Your task to perform on an android device: Open Reddit.com Image 0: 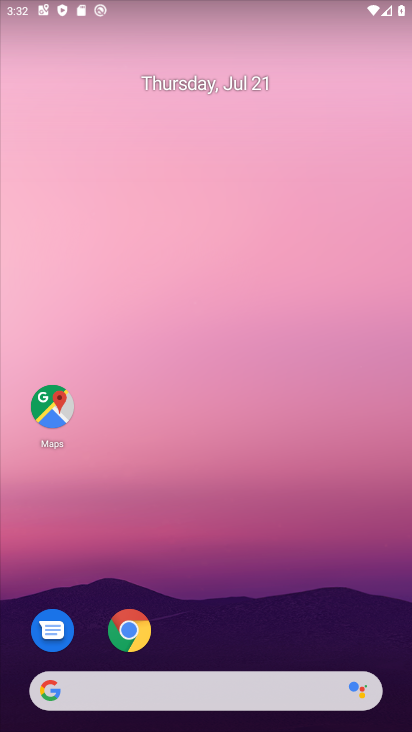
Step 0: drag from (227, 666) to (376, 0)
Your task to perform on an android device: Open Reddit.com Image 1: 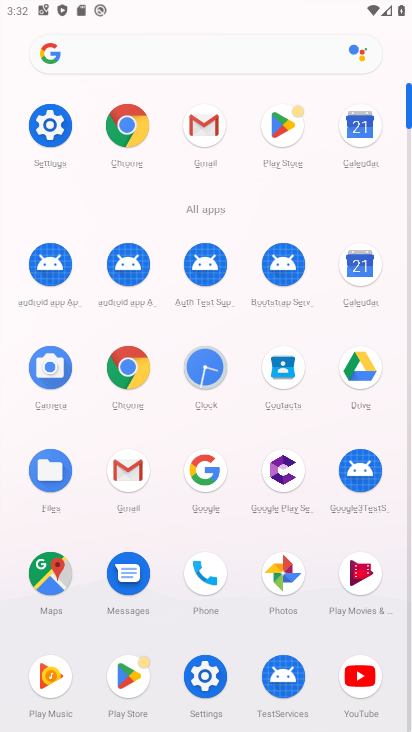
Step 1: click (117, 136)
Your task to perform on an android device: Open Reddit.com Image 2: 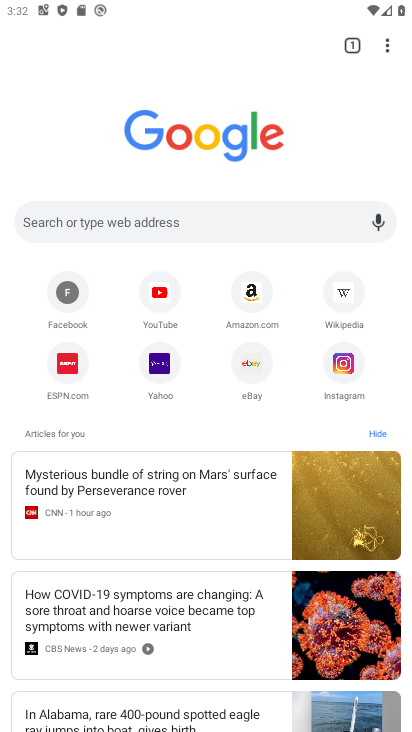
Step 2: click (234, 210)
Your task to perform on an android device: Open Reddit.com Image 3: 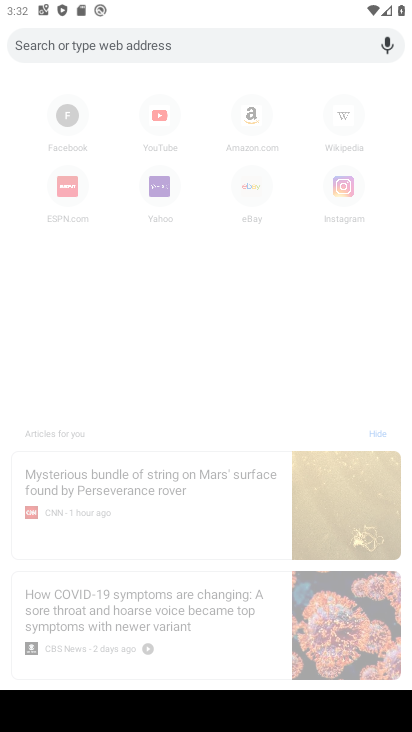
Step 3: type " Reddit.com"
Your task to perform on an android device: Open Reddit.com Image 4: 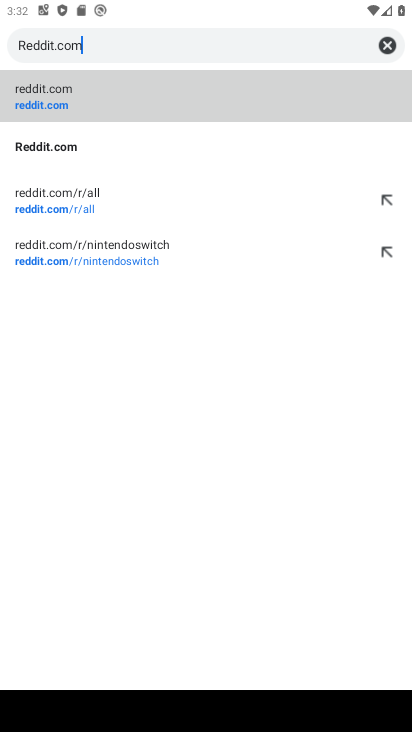
Step 4: type ""
Your task to perform on an android device: Open Reddit.com Image 5: 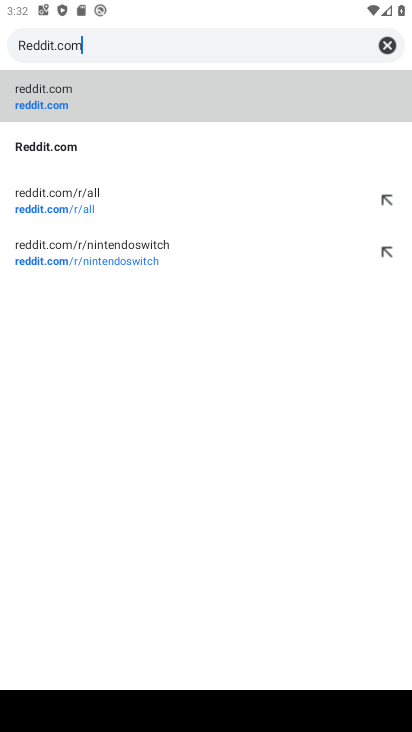
Step 5: click (122, 110)
Your task to perform on an android device: Open Reddit.com Image 6: 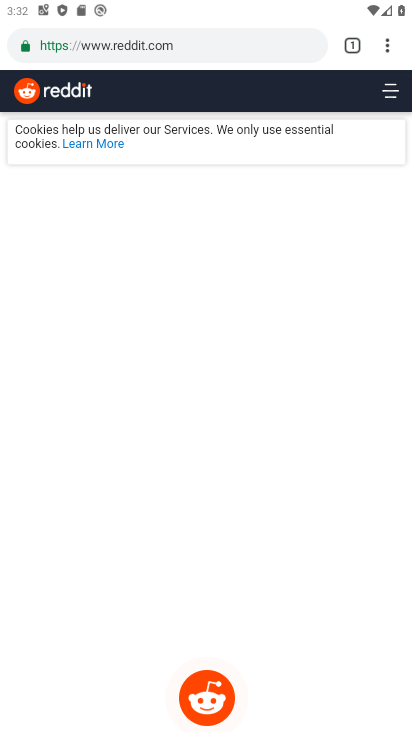
Step 6: task complete